Your task to perform on an android device: Go to Google Image 0: 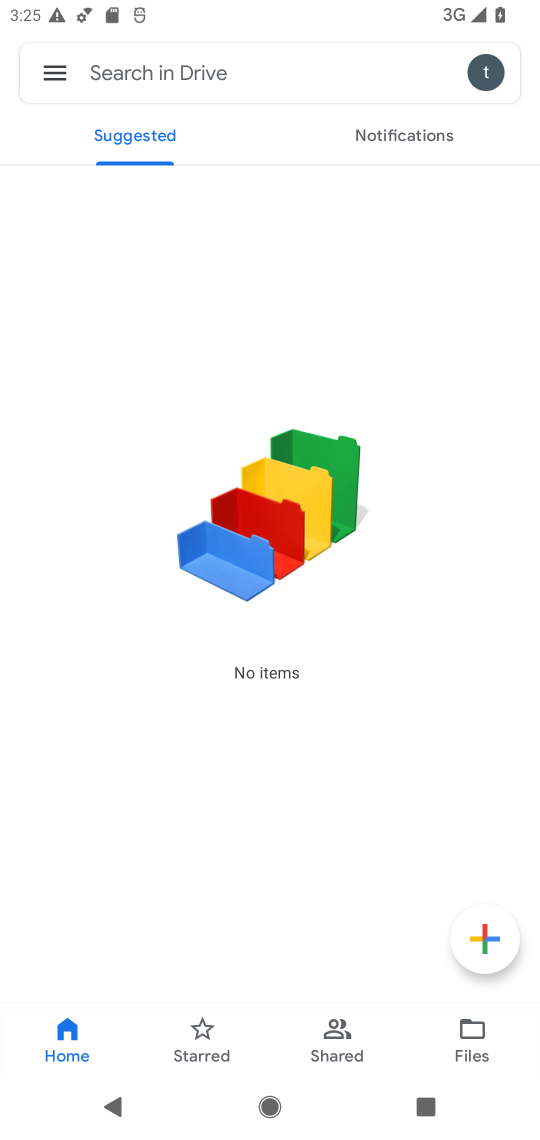
Step 0: press home button
Your task to perform on an android device: Go to Google Image 1: 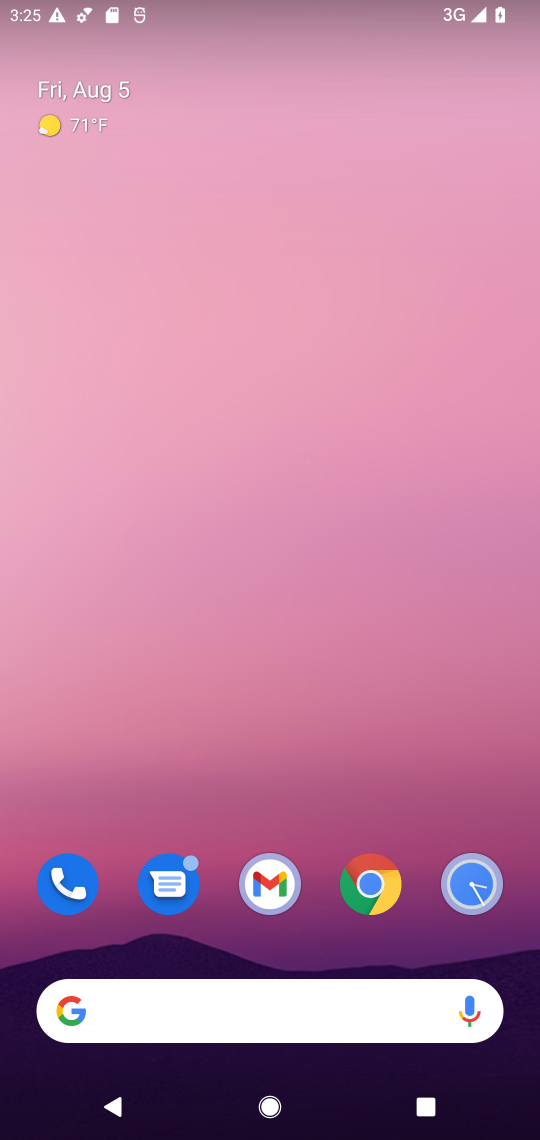
Step 1: drag from (408, 839) to (232, 86)
Your task to perform on an android device: Go to Google Image 2: 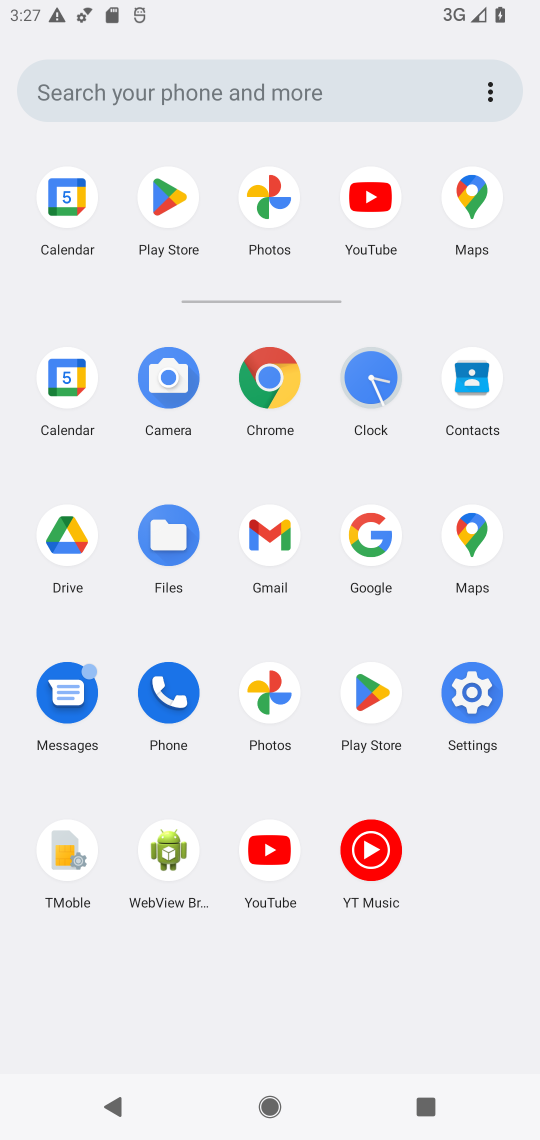
Step 2: click (367, 538)
Your task to perform on an android device: Go to Google Image 3: 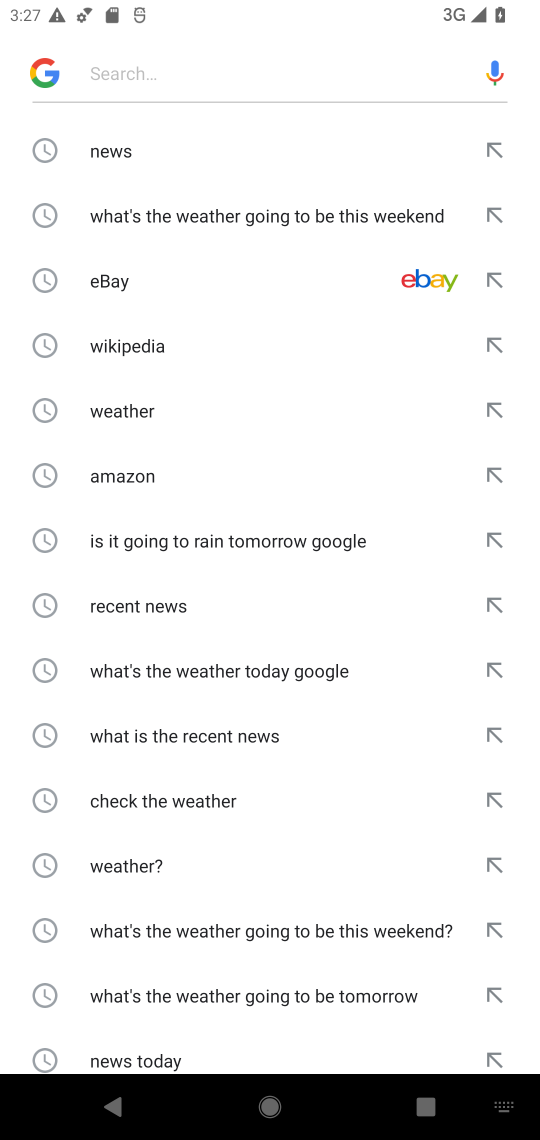
Step 3: task complete